Your task to perform on an android device: all mails in gmail Image 0: 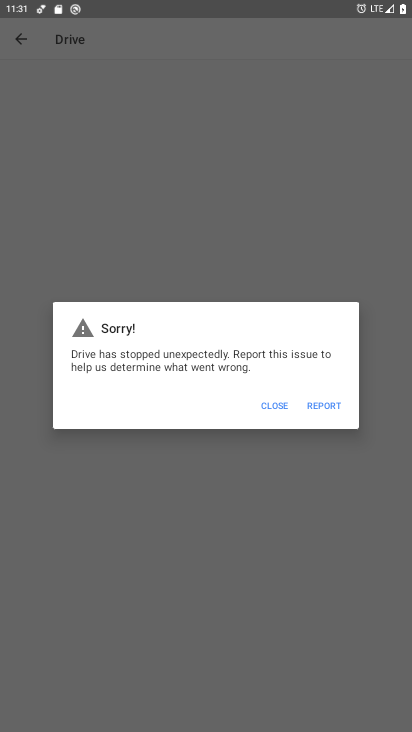
Step 0: press home button
Your task to perform on an android device: all mails in gmail Image 1: 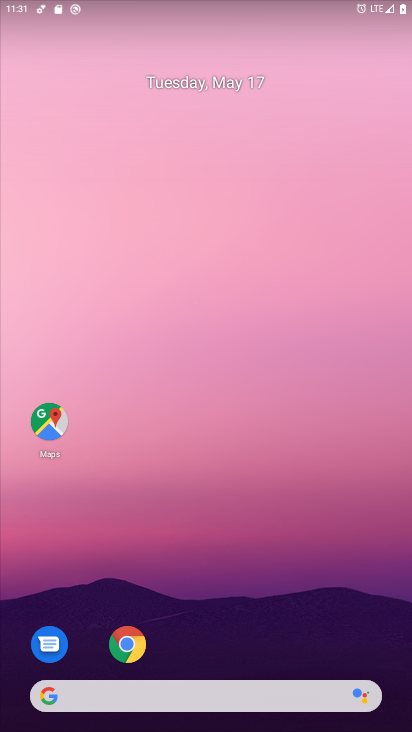
Step 1: drag from (216, 668) to (209, 206)
Your task to perform on an android device: all mails in gmail Image 2: 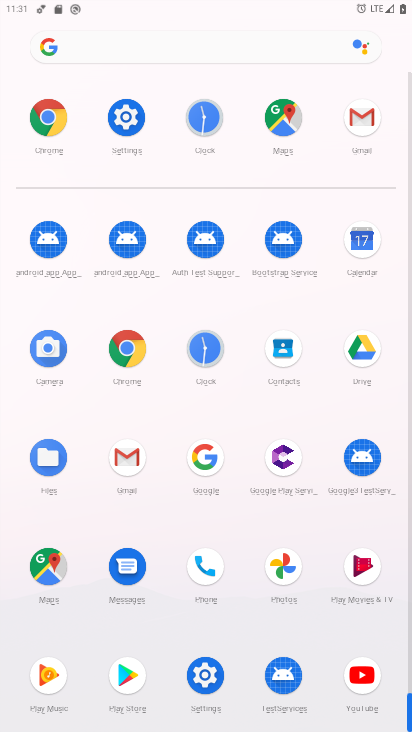
Step 2: click (360, 106)
Your task to perform on an android device: all mails in gmail Image 3: 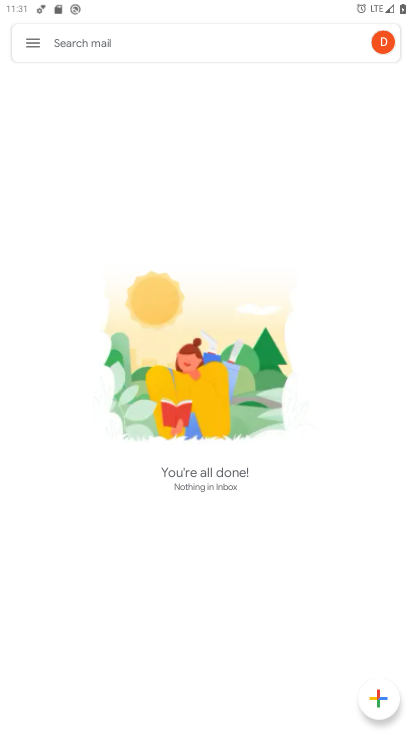
Step 3: click (33, 36)
Your task to perform on an android device: all mails in gmail Image 4: 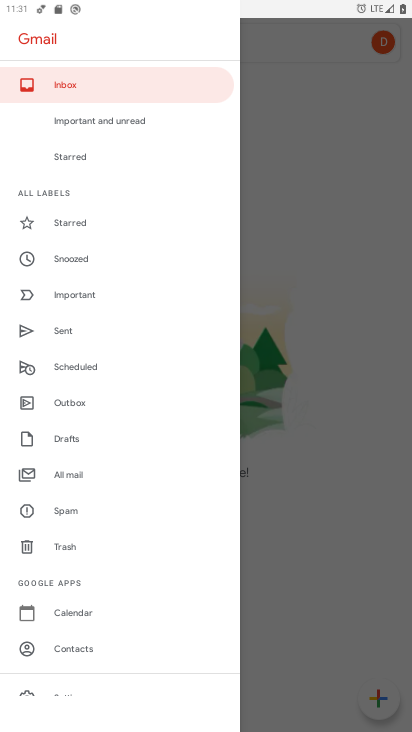
Step 4: click (88, 470)
Your task to perform on an android device: all mails in gmail Image 5: 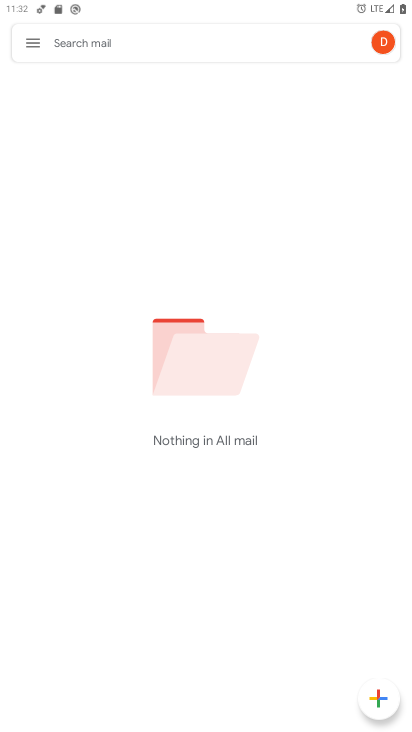
Step 5: task complete